Your task to perform on an android device: check android version Image 0: 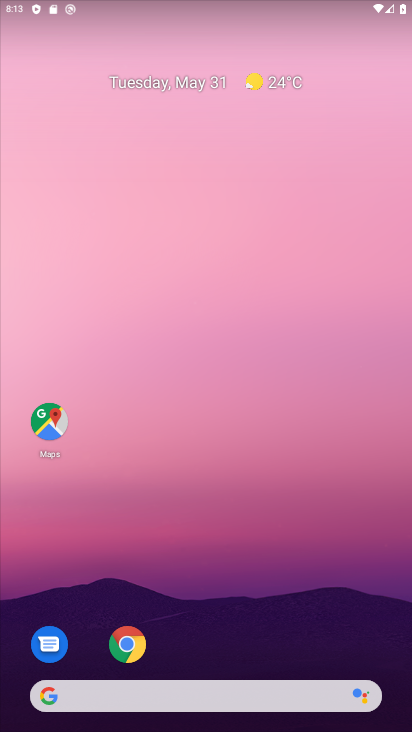
Step 0: drag from (255, 612) to (57, 261)
Your task to perform on an android device: check android version Image 1: 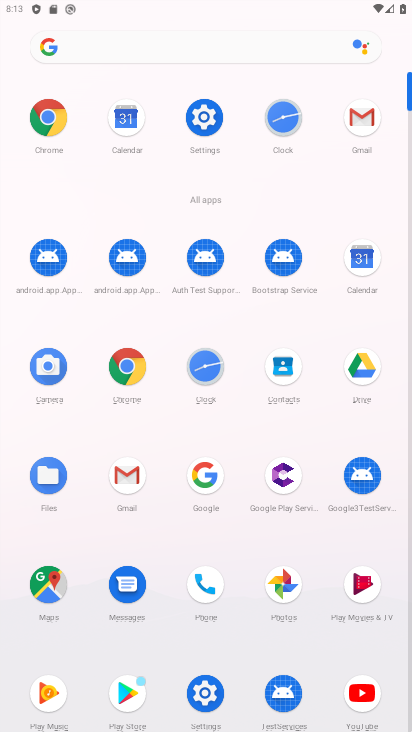
Step 1: click (201, 109)
Your task to perform on an android device: check android version Image 2: 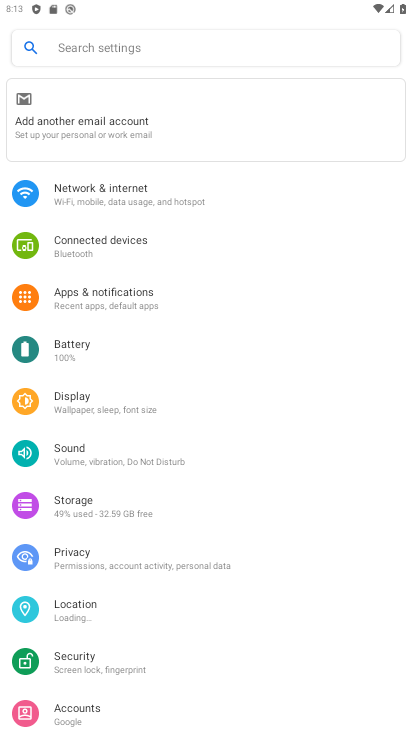
Step 2: drag from (78, 673) to (10, 295)
Your task to perform on an android device: check android version Image 3: 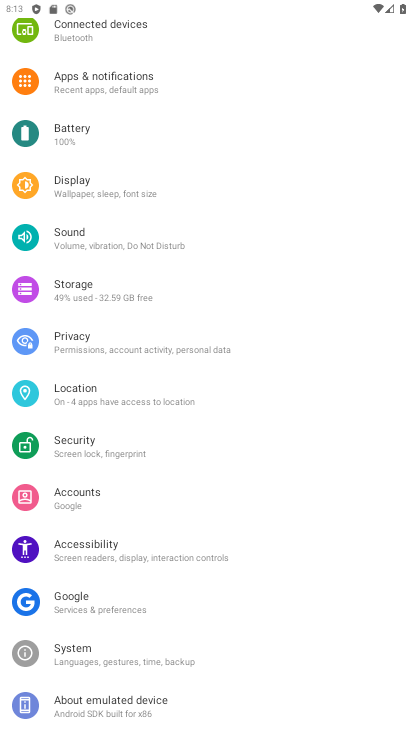
Step 3: drag from (248, 676) to (8, 330)
Your task to perform on an android device: check android version Image 4: 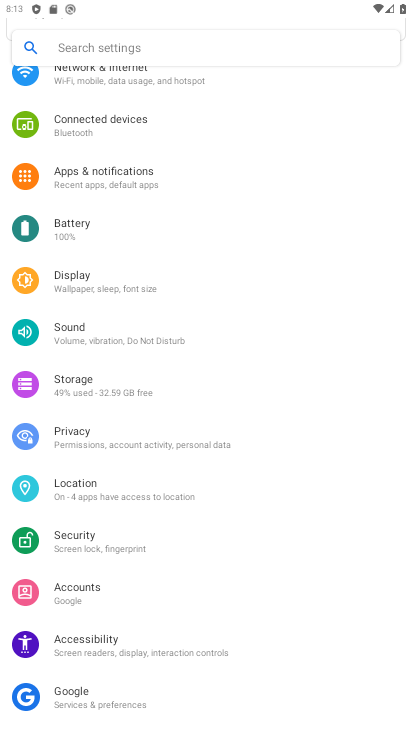
Step 4: drag from (150, 658) to (2, 294)
Your task to perform on an android device: check android version Image 5: 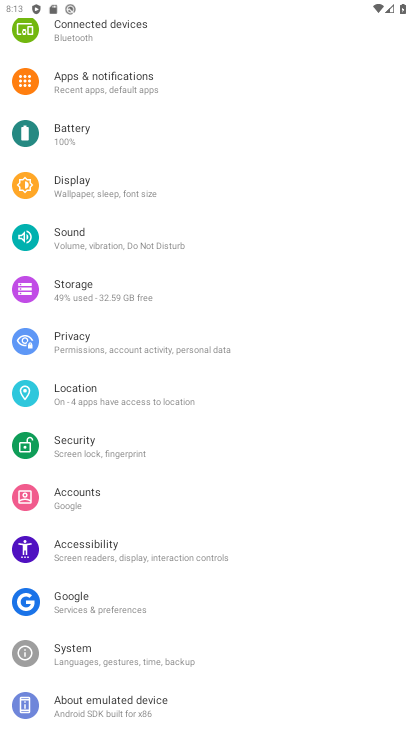
Step 5: click (141, 700)
Your task to perform on an android device: check android version Image 6: 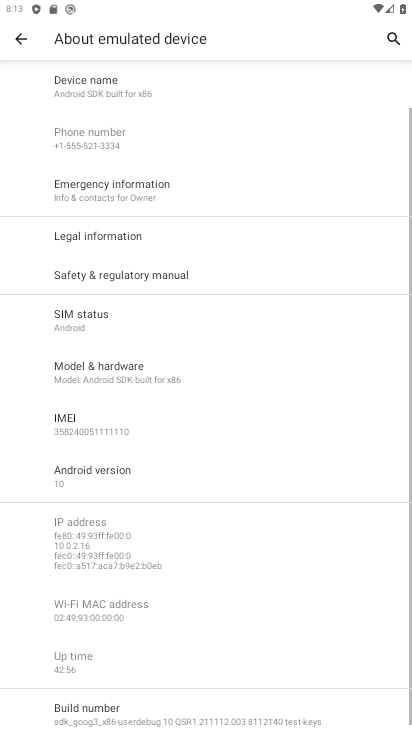
Step 6: click (88, 467)
Your task to perform on an android device: check android version Image 7: 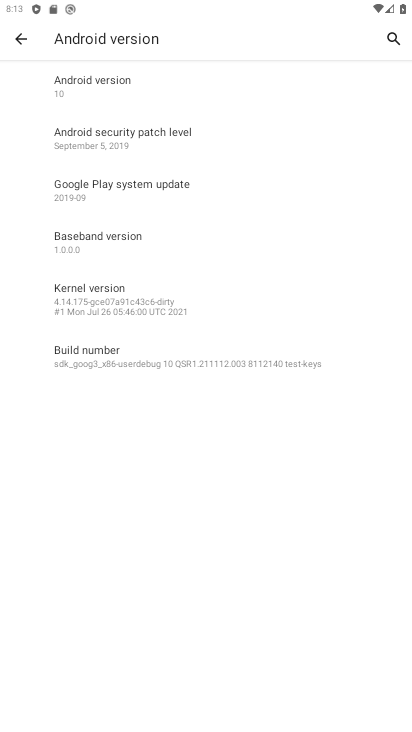
Step 7: task complete